Your task to perform on an android device: turn pop-ups on in chrome Image 0: 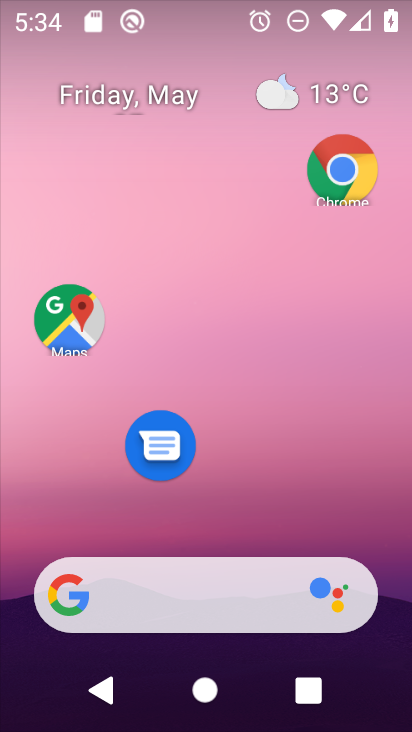
Step 0: click (349, 170)
Your task to perform on an android device: turn pop-ups on in chrome Image 1: 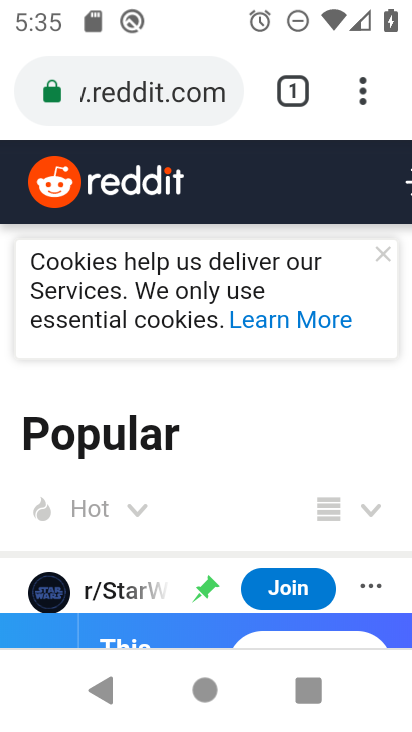
Step 1: click (365, 101)
Your task to perform on an android device: turn pop-ups on in chrome Image 2: 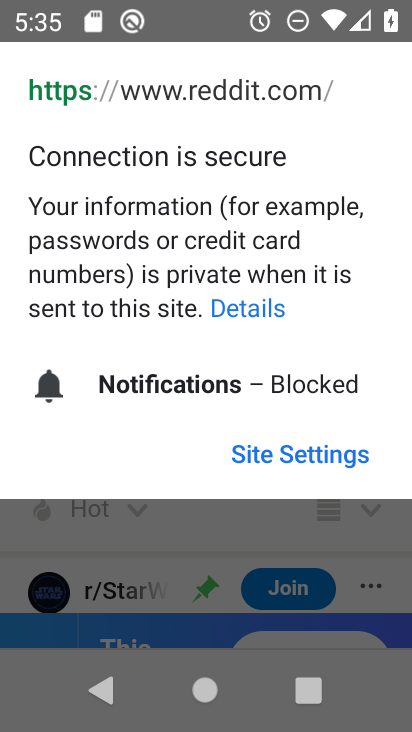
Step 2: click (255, 533)
Your task to perform on an android device: turn pop-ups on in chrome Image 3: 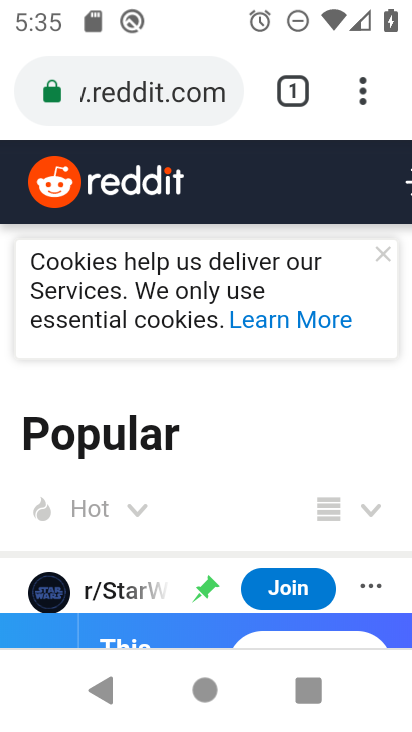
Step 3: click (360, 93)
Your task to perform on an android device: turn pop-ups on in chrome Image 4: 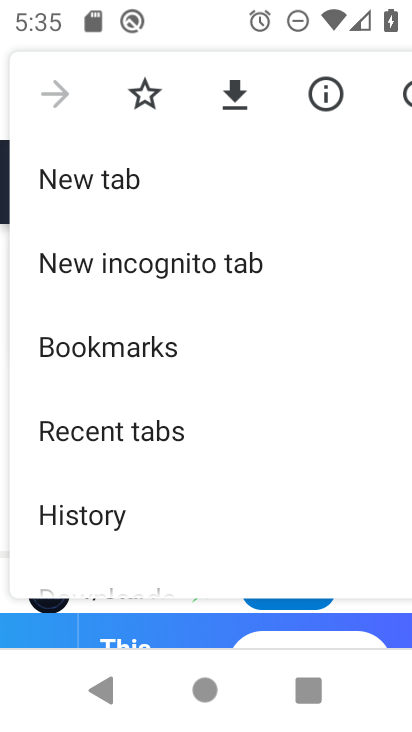
Step 4: drag from (209, 508) to (196, 232)
Your task to perform on an android device: turn pop-ups on in chrome Image 5: 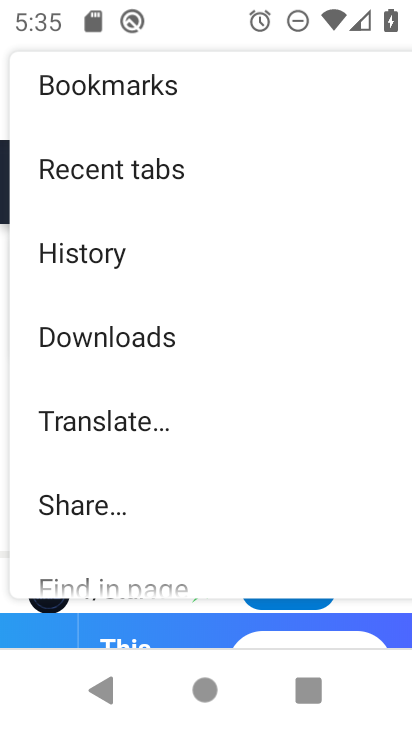
Step 5: drag from (204, 525) to (210, 253)
Your task to perform on an android device: turn pop-ups on in chrome Image 6: 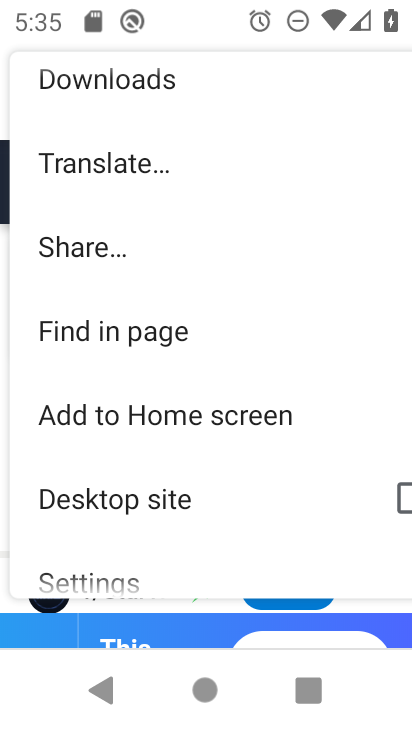
Step 6: drag from (187, 491) to (239, 92)
Your task to perform on an android device: turn pop-ups on in chrome Image 7: 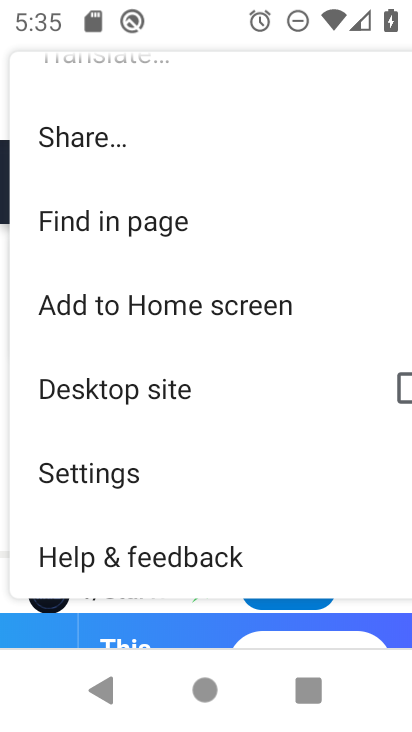
Step 7: click (126, 477)
Your task to perform on an android device: turn pop-ups on in chrome Image 8: 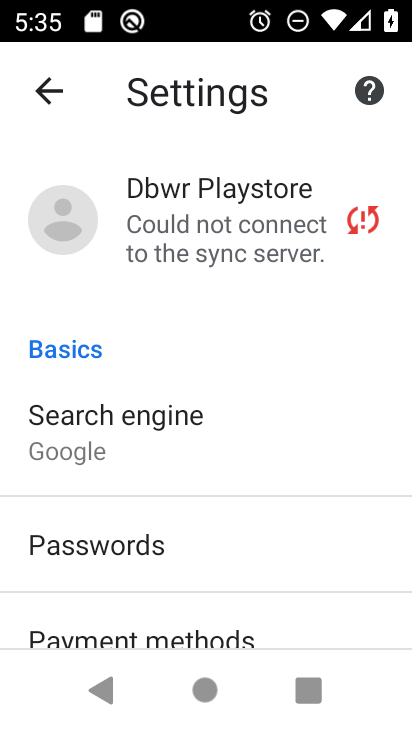
Step 8: drag from (197, 566) to (184, 117)
Your task to perform on an android device: turn pop-ups on in chrome Image 9: 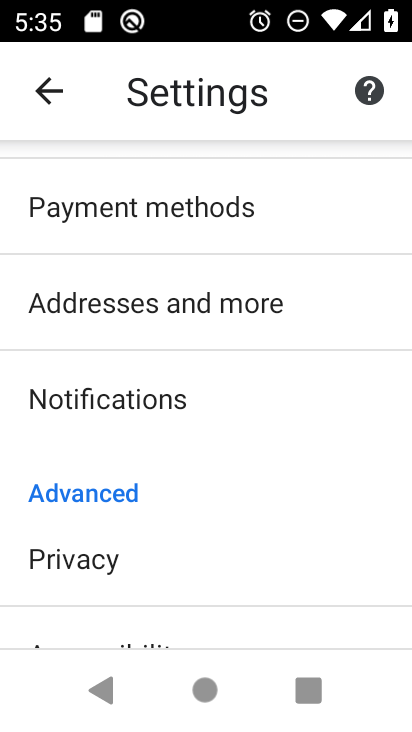
Step 9: drag from (145, 390) to (186, 96)
Your task to perform on an android device: turn pop-ups on in chrome Image 10: 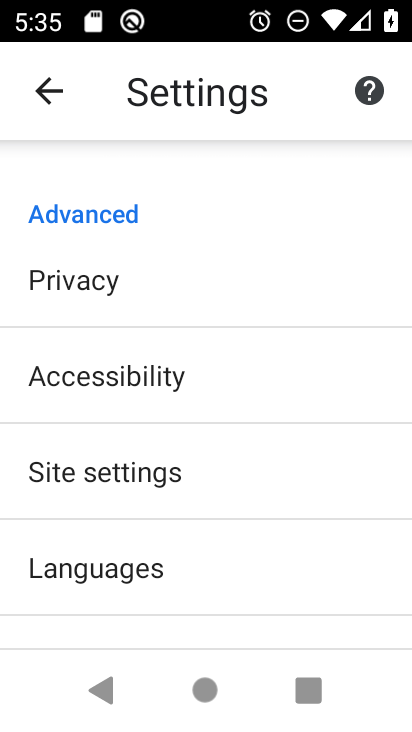
Step 10: click (137, 482)
Your task to perform on an android device: turn pop-ups on in chrome Image 11: 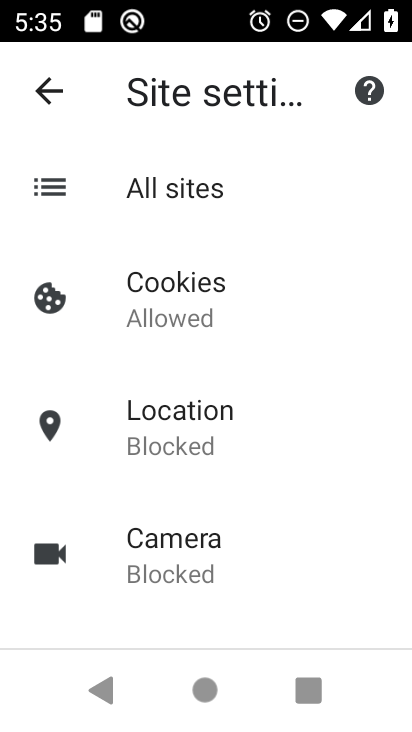
Step 11: drag from (234, 569) to (223, 267)
Your task to perform on an android device: turn pop-ups on in chrome Image 12: 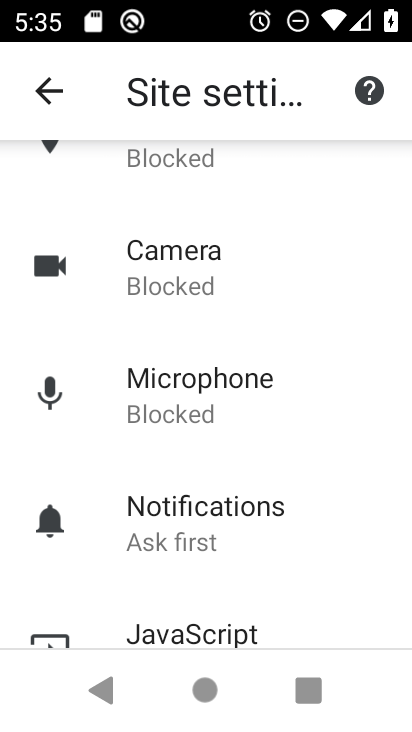
Step 12: drag from (209, 571) to (216, 303)
Your task to perform on an android device: turn pop-ups on in chrome Image 13: 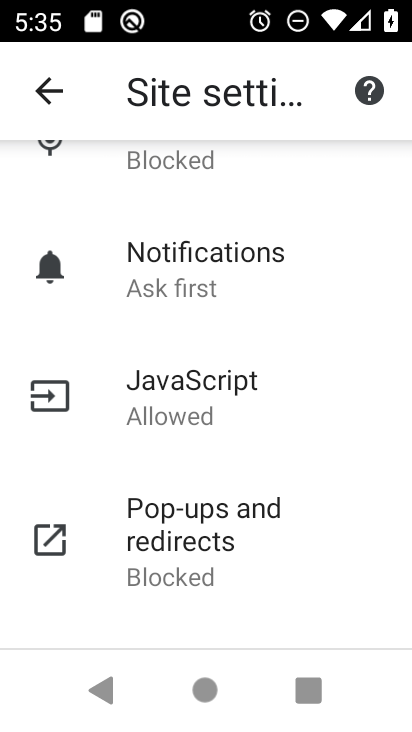
Step 13: click (229, 558)
Your task to perform on an android device: turn pop-ups on in chrome Image 14: 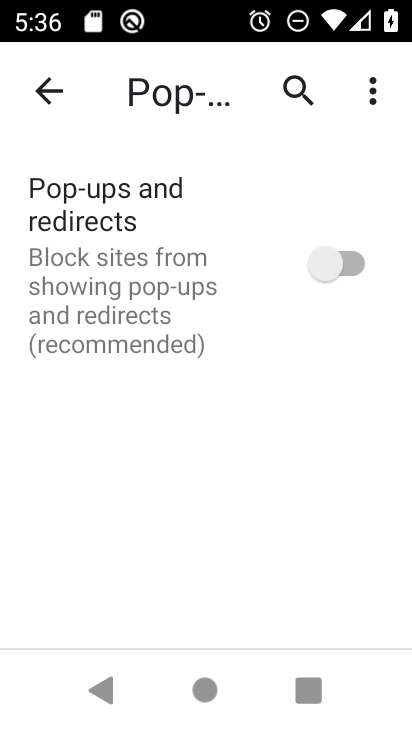
Step 14: click (346, 269)
Your task to perform on an android device: turn pop-ups on in chrome Image 15: 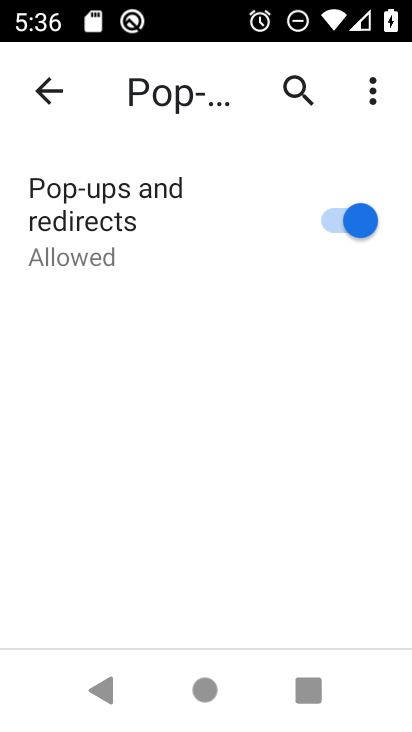
Step 15: task complete